Your task to perform on an android device: toggle improve location accuracy Image 0: 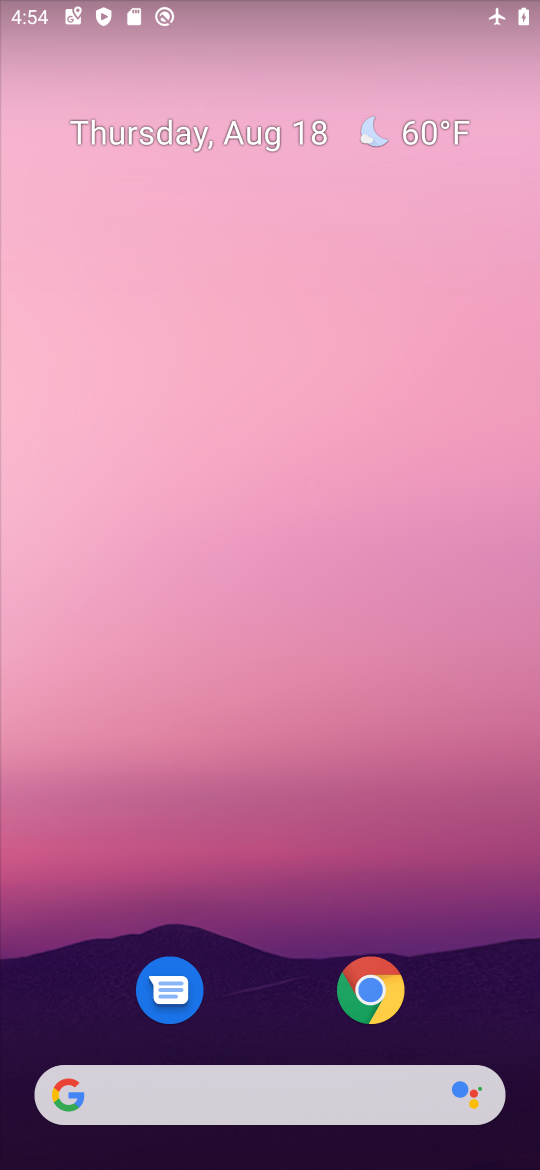
Step 0: drag from (260, 929) to (398, 36)
Your task to perform on an android device: toggle improve location accuracy Image 1: 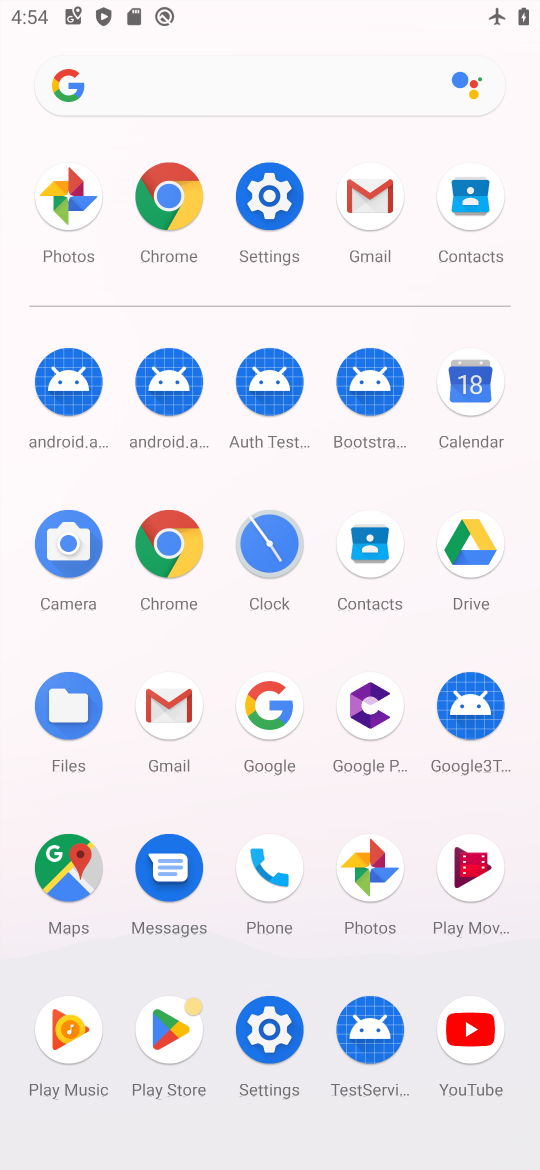
Step 1: click (277, 1040)
Your task to perform on an android device: toggle improve location accuracy Image 2: 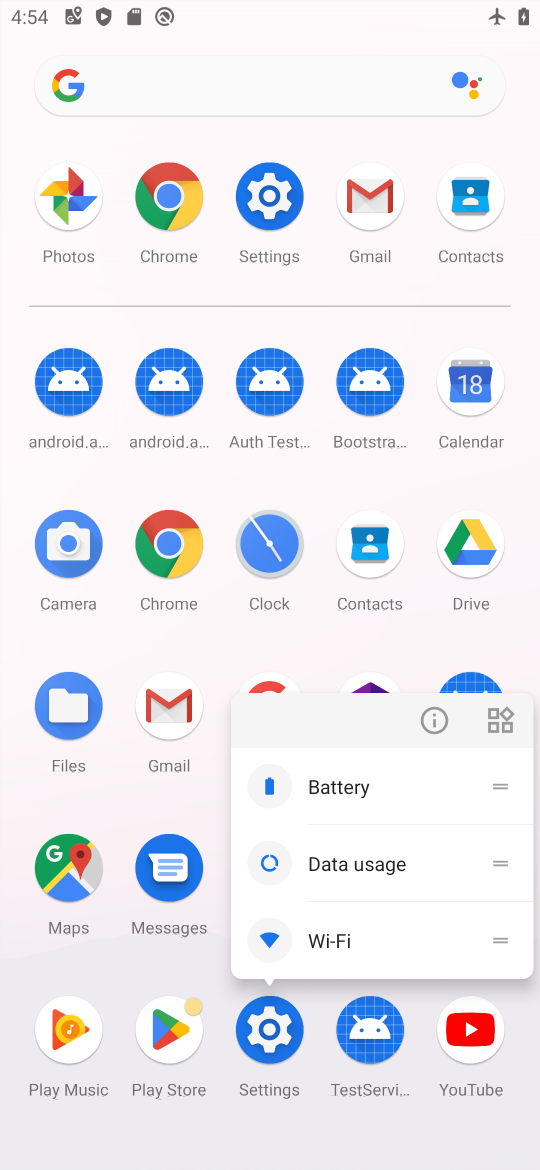
Step 2: click (274, 1036)
Your task to perform on an android device: toggle improve location accuracy Image 3: 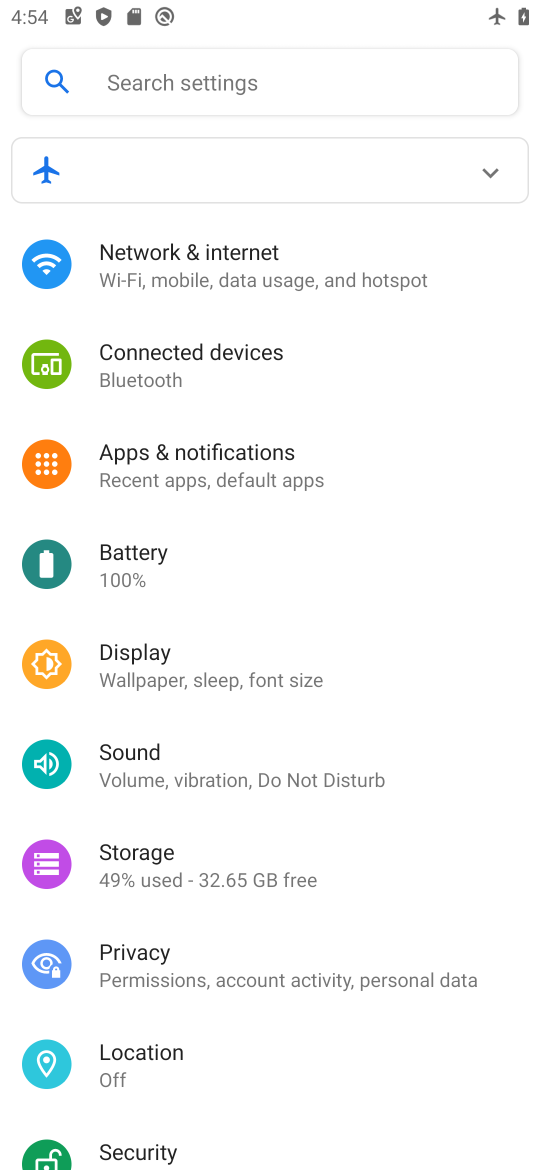
Step 3: click (155, 1064)
Your task to perform on an android device: toggle improve location accuracy Image 4: 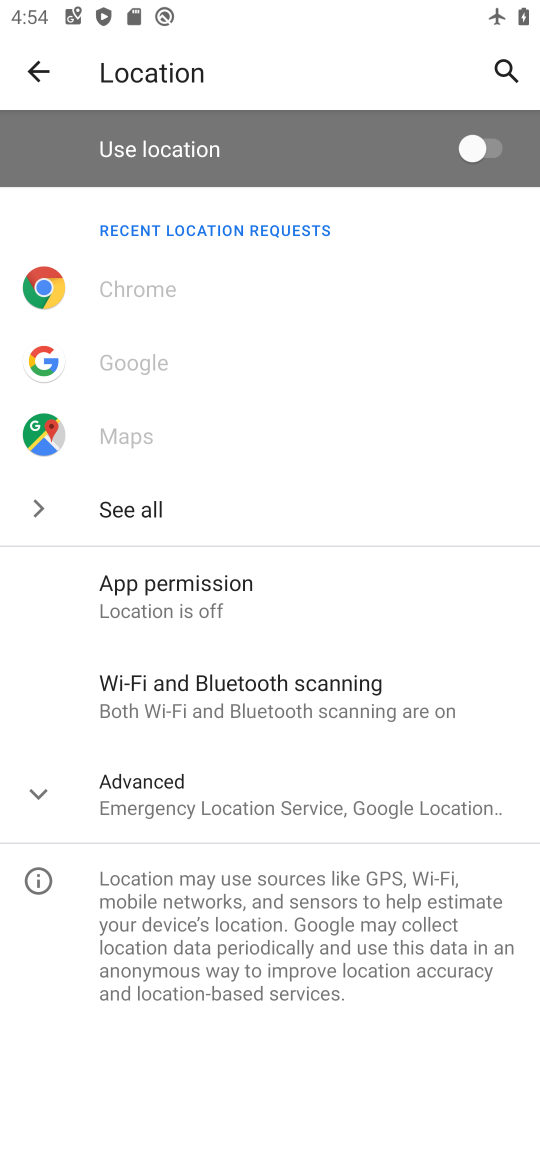
Step 4: click (194, 800)
Your task to perform on an android device: toggle improve location accuracy Image 5: 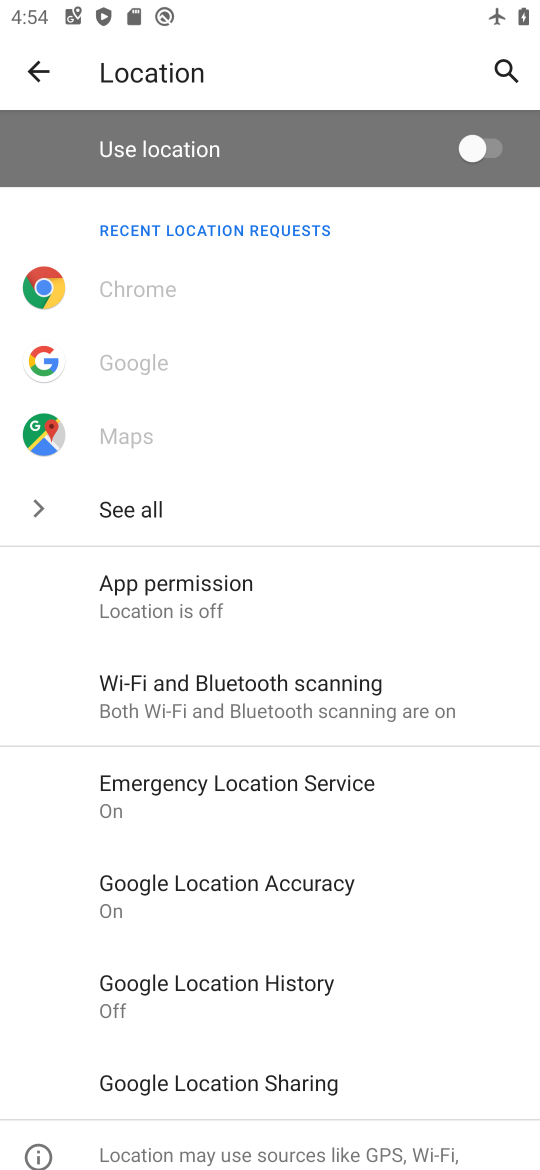
Step 5: click (286, 891)
Your task to perform on an android device: toggle improve location accuracy Image 6: 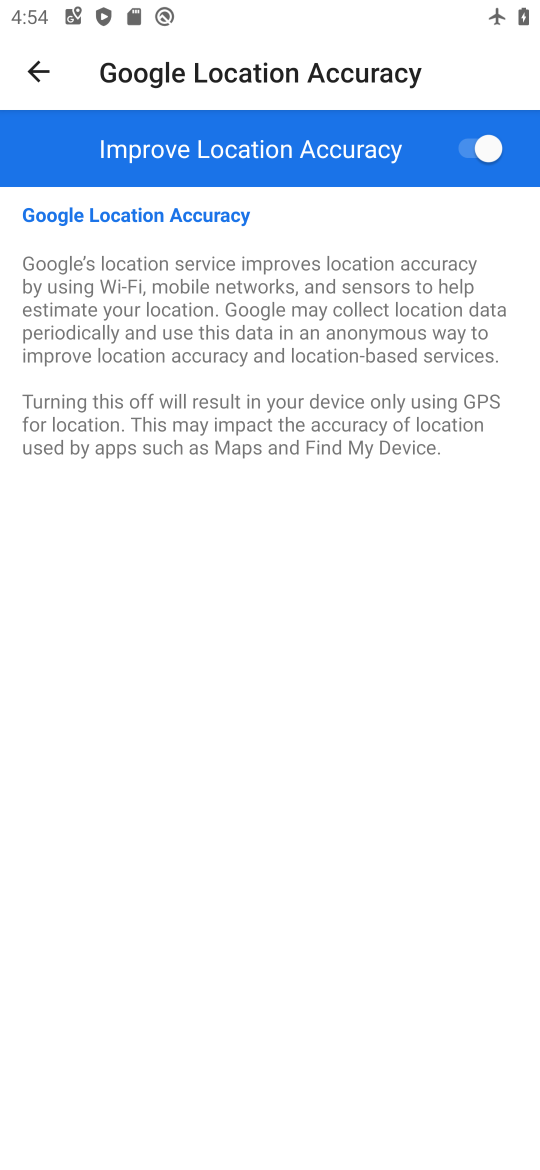
Step 6: click (485, 142)
Your task to perform on an android device: toggle improve location accuracy Image 7: 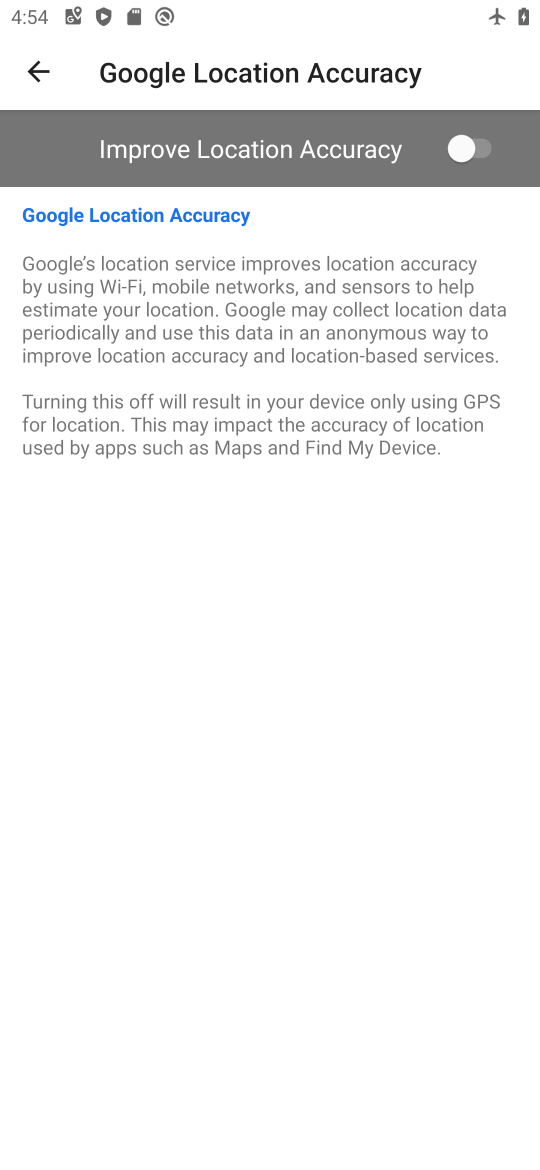
Step 7: task complete